Your task to perform on an android device: Open the stopwatch Image 0: 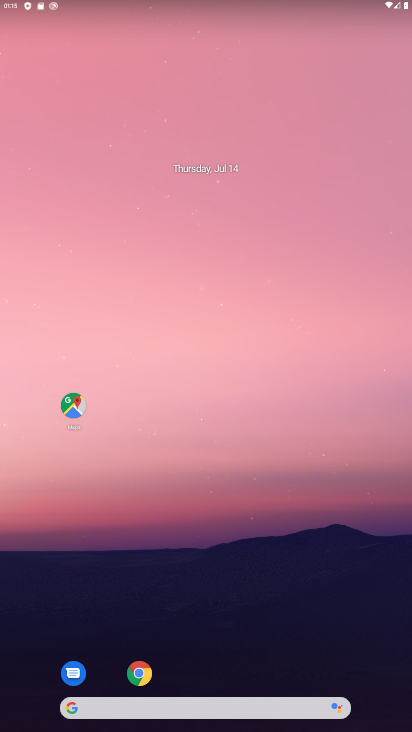
Step 0: drag from (222, 647) to (221, 145)
Your task to perform on an android device: Open the stopwatch Image 1: 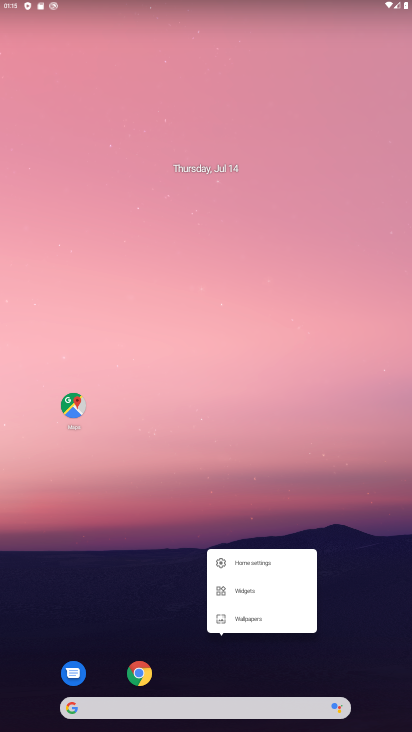
Step 1: click (210, 330)
Your task to perform on an android device: Open the stopwatch Image 2: 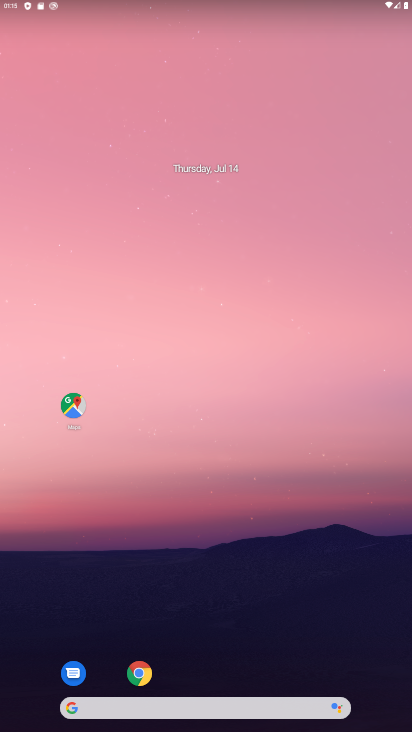
Step 2: drag from (247, 664) to (221, 309)
Your task to perform on an android device: Open the stopwatch Image 3: 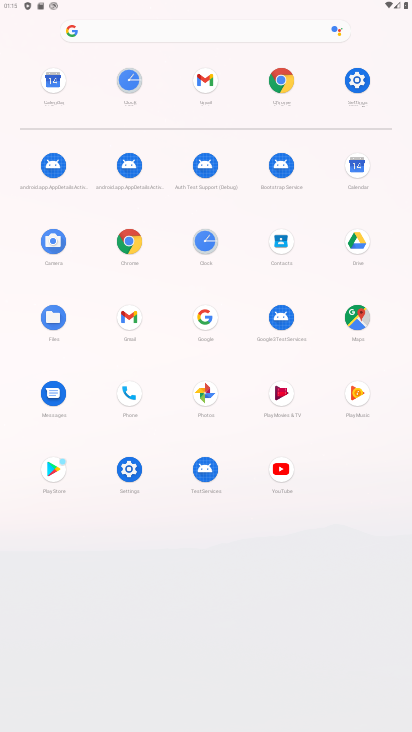
Step 3: click (125, 95)
Your task to perform on an android device: Open the stopwatch Image 4: 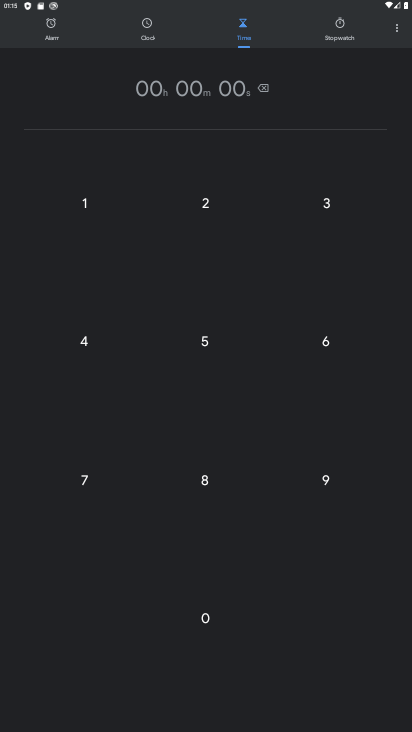
Step 4: click (334, 44)
Your task to perform on an android device: Open the stopwatch Image 5: 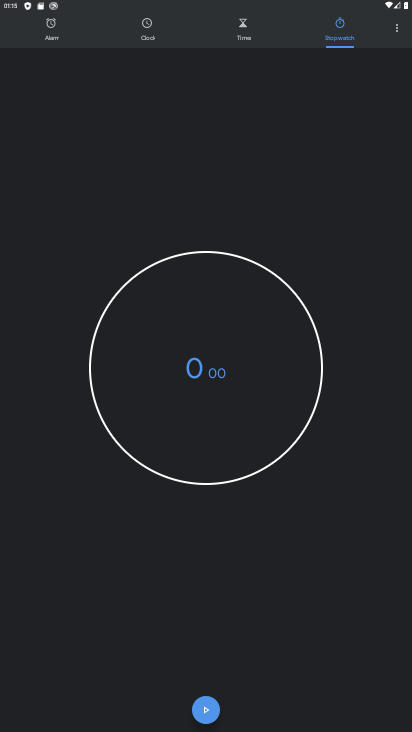
Step 5: task complete